Your task to perform on an android device: Check the news Image 0: 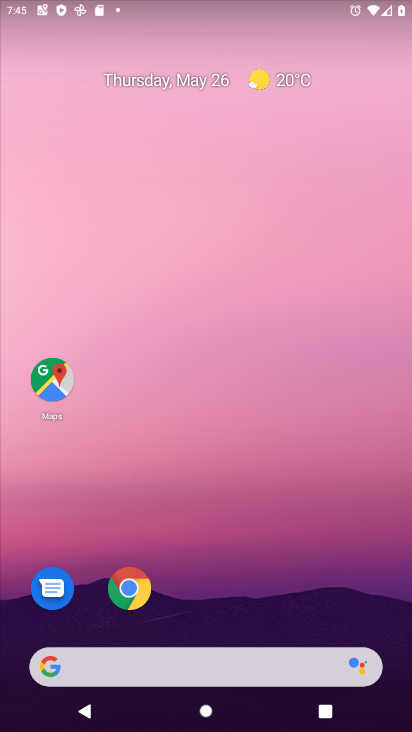
Step 0: drag from (376, 606) to (319, 57)
Your task to perform on an android device: Check the news Image 1: 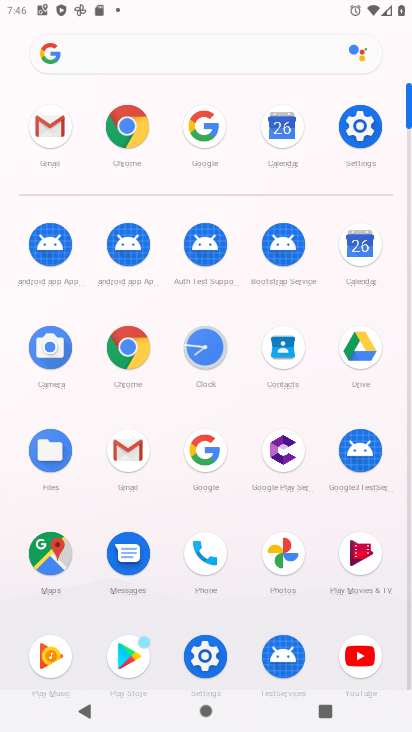
Step 1: click (214, 456)
Your task to perform on an android device: Check the news Image 2: 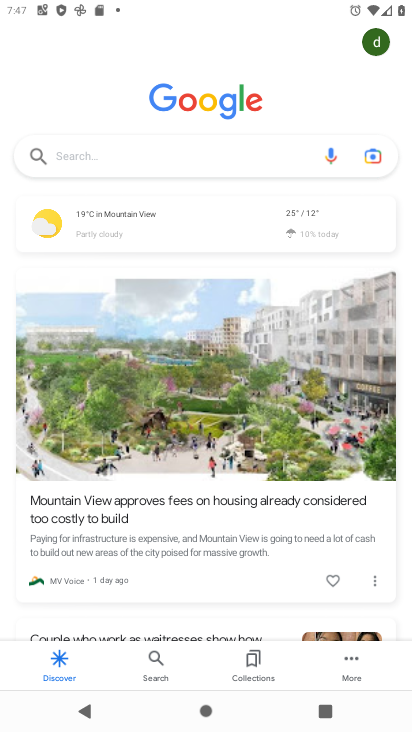
Step 2: click (161, 160)
Your task to perform on an android device: Check the news Image 3: 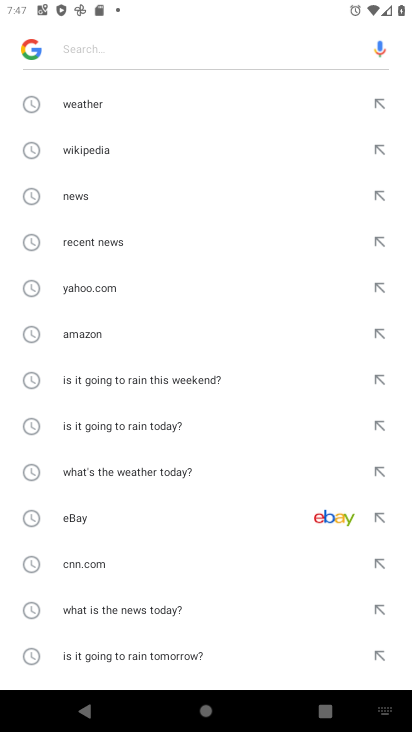
Step 3: click (74, 198)
Your task to perform on an android device: Check the news Image 4: 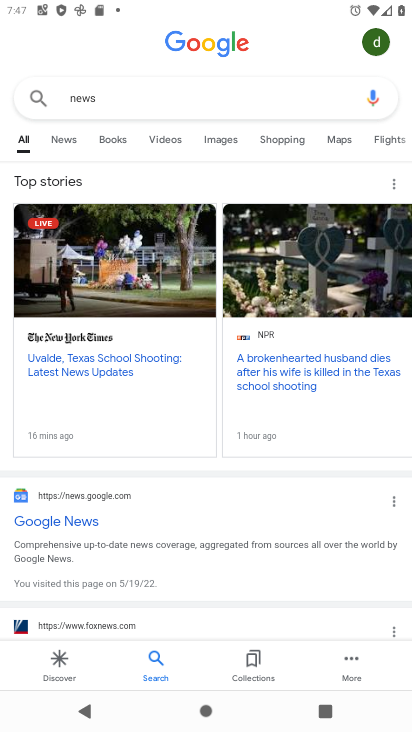
Step 4: task complete